Your task to perform on an android device: toggle airplane mode Image 0: 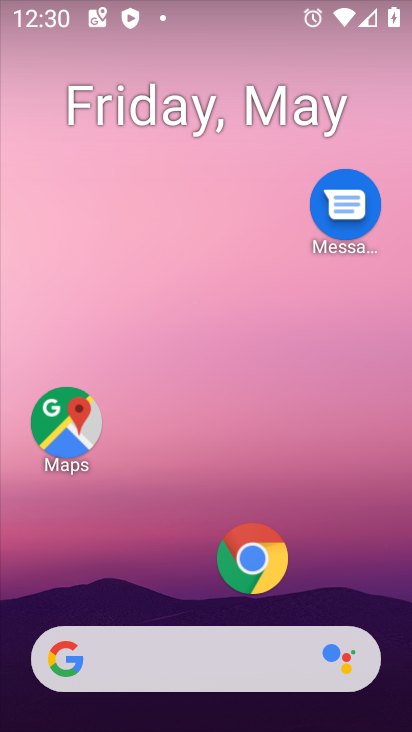
Step 0: drag from (170, 615) to (221, 79)
Your task to perform on an android device: toggle airplane mode Image 1: 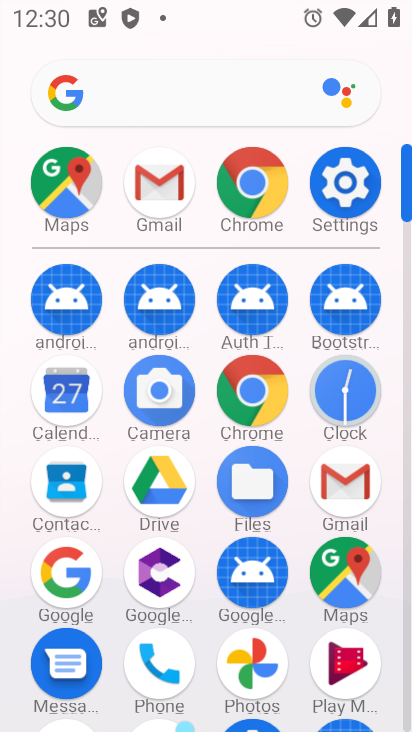
Step 1: click (342, 197)
Your task to perform on an android device: toggle airplane mode Image 2: 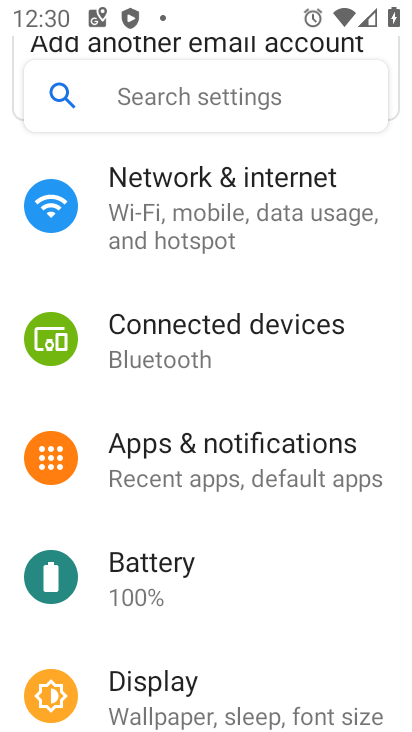
Step 2: drag from (256, 283) to (187, 641)
Your task to perform on an android device: toggle airplane mode Image 3: 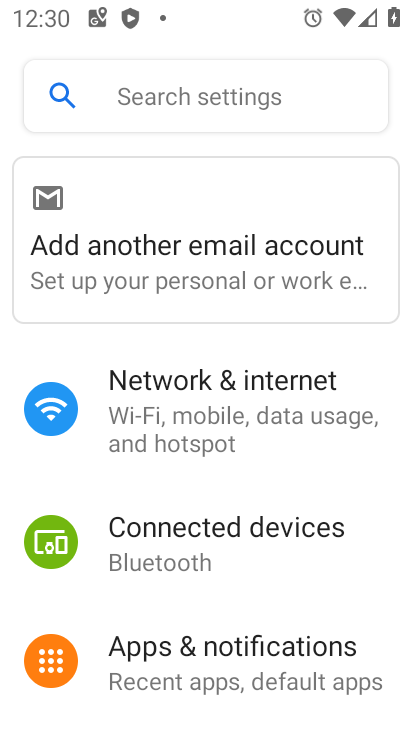
Step 3: click (227, 406)
Your task to perform on an android device: toggle airplane mode Image 4: 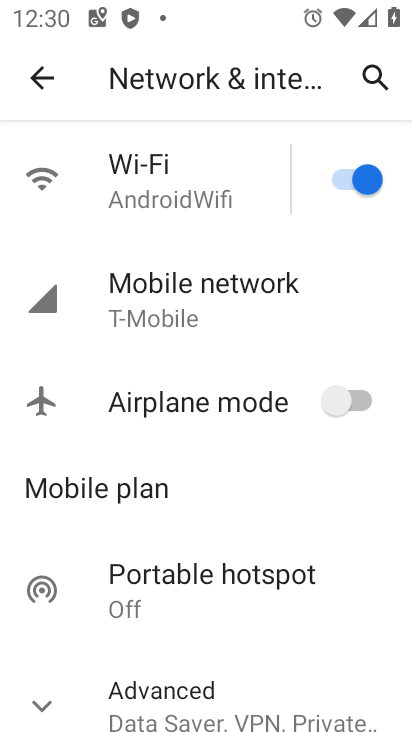
Step 4: click (239, 414)
Your task to perform on an android device: toggle airplane mode Image 5: 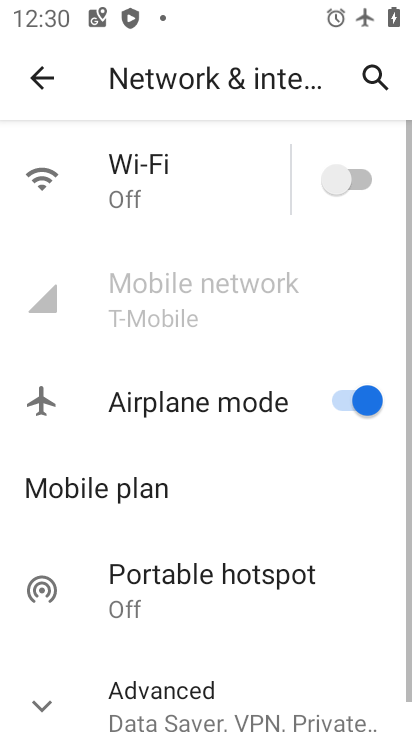
Step 5: task complete